Your task to perform on an android device: check the backup settings in the google photos Image 0: 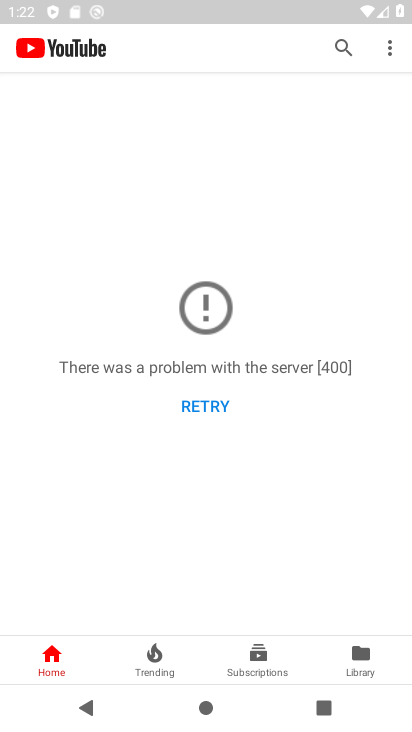
Step 0: press back button
Your task to perform on an android device: check the backup settings in the google photos Image 1: 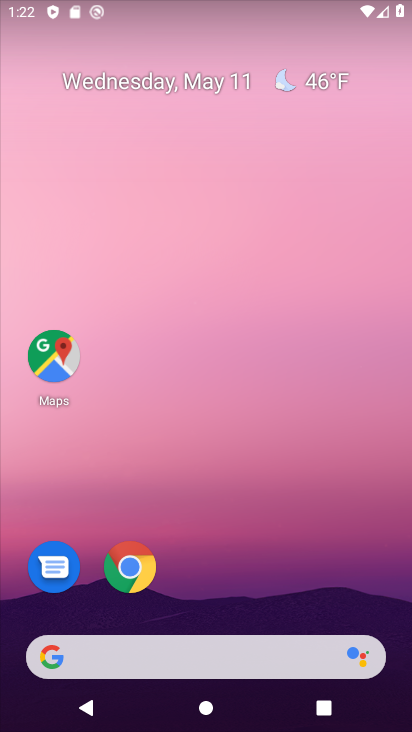
Step 1: drag from (231, 626) to (159, 62)
Your task to perform on an android device: check the backup settings in the google photos Image 2: 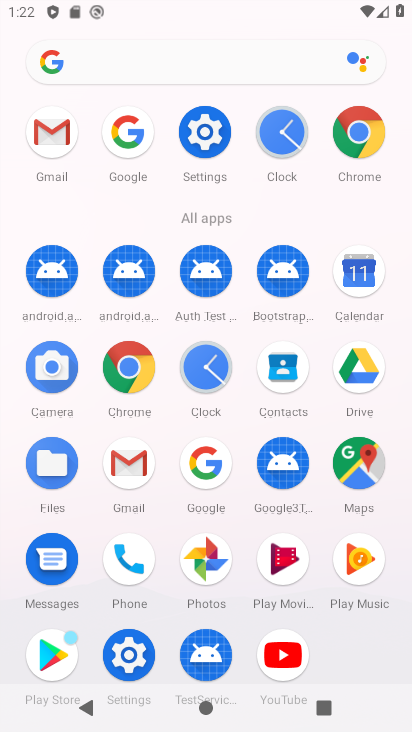
Step 2: click (203, 562)
Your task to perform on an android device: check the backup settings in the google photos Image 3: 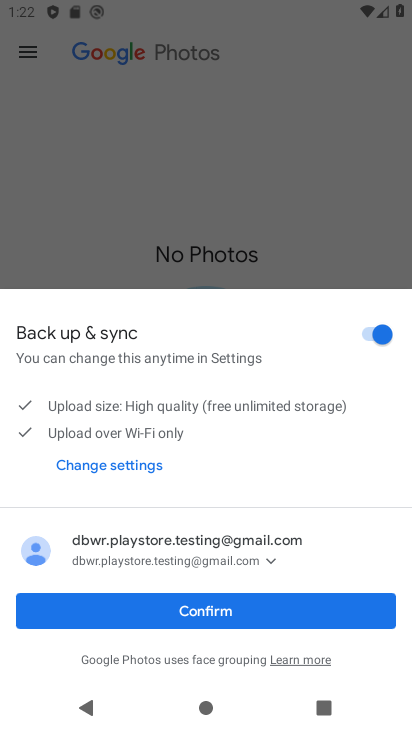
Step 3: click (123, 471)
Your task to perform on an android device: check the backup settings in the google photos Image 4: 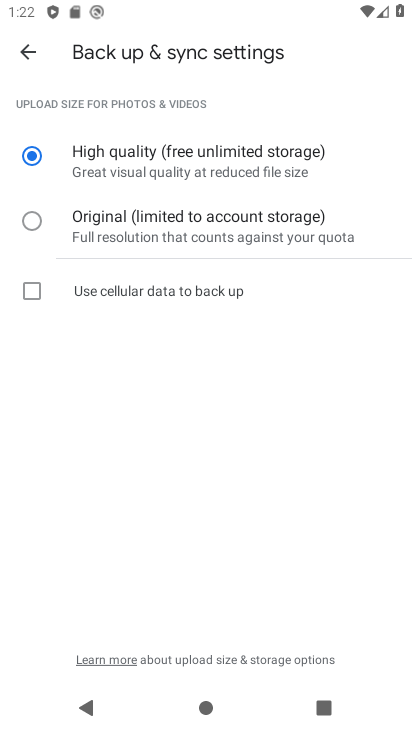
Step 4: click (85, 219)
Your task to perform on an android device: check the backup settings in the google photos Image 5: 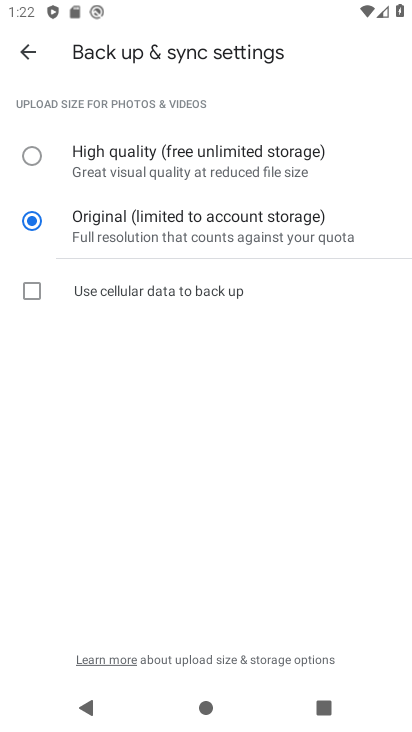
Step 5: click (18, 59)
Your task to perform on an android device: check the backup settings in the google photos Image 6: 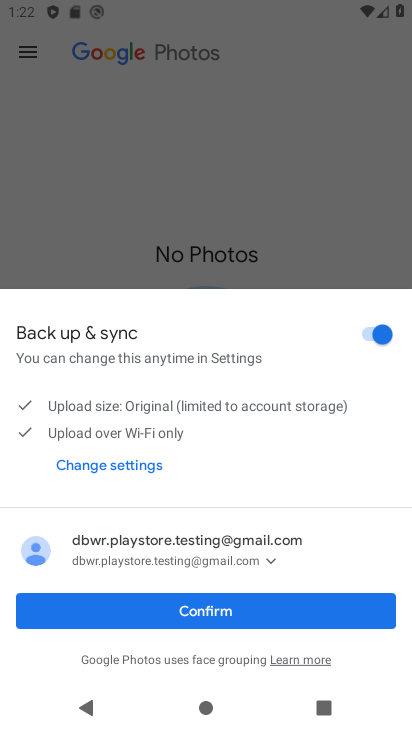
Step 6: click (210, 617)
Your task to perform on an android device: check the backup settings in the google photos Image 7: 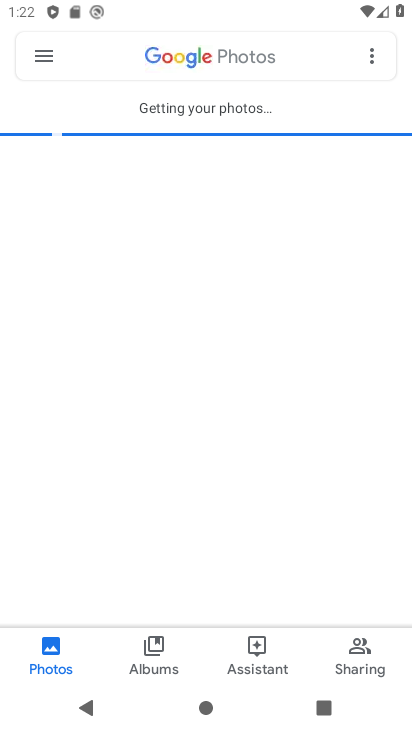
Step 7: task complete